Your task to perform on an android device: turn notification dots off Image 0: 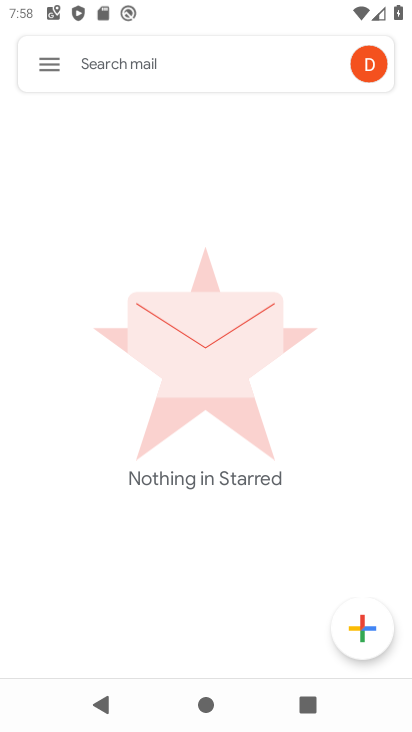
Step 0: press home button
Your task to perform on an android device: turn notification dots off Image 1: 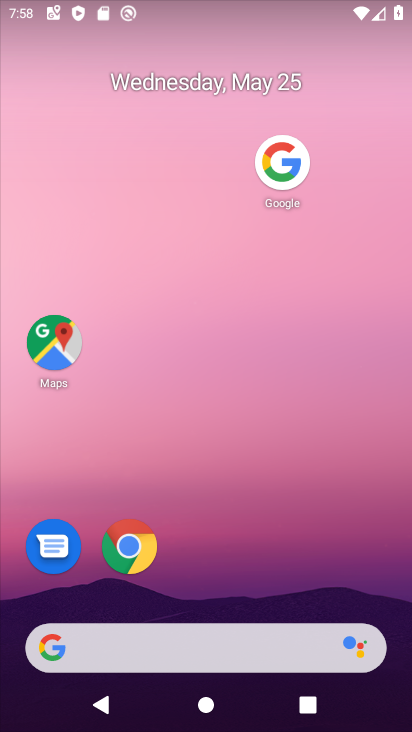
Step 1: drag from (223, 633) to (389, 105)
Your task to perform on an android device: turn notification dots off Image 2: 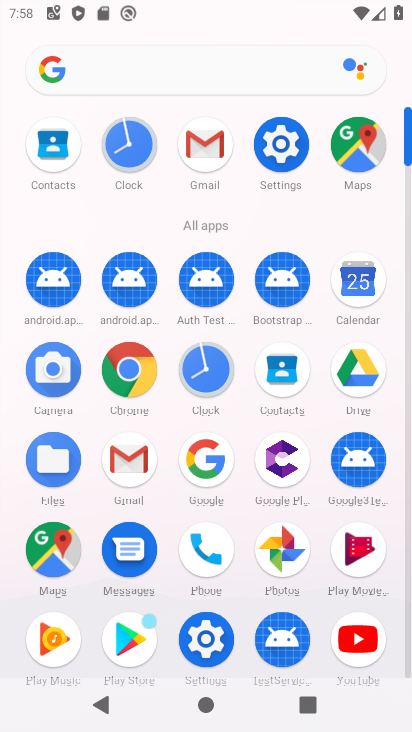
Step 2: click (281, 138)
Your task to perform on an android device: turn notification dots off Image 3: 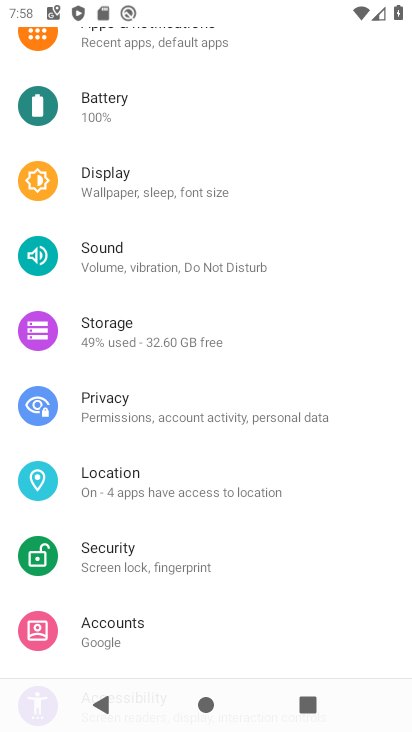
Step 3: click (311, 112)
Your task to perform on an android device: turn notification dots off Image 4: 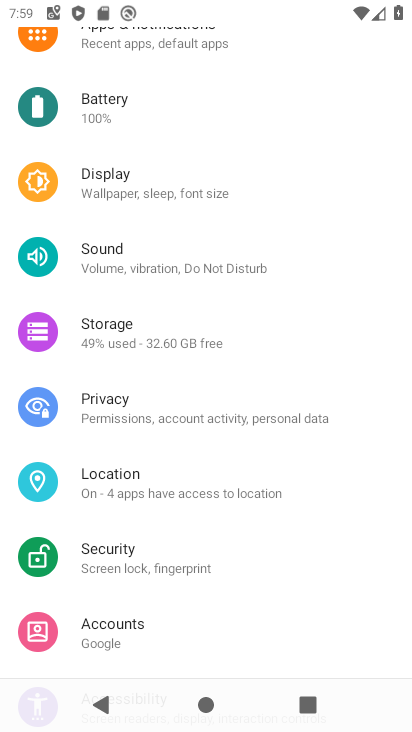
Step 4: drag from (267, 102) to (215, 533)
Your task to perform on an android device: turn notification dots off Image 5: 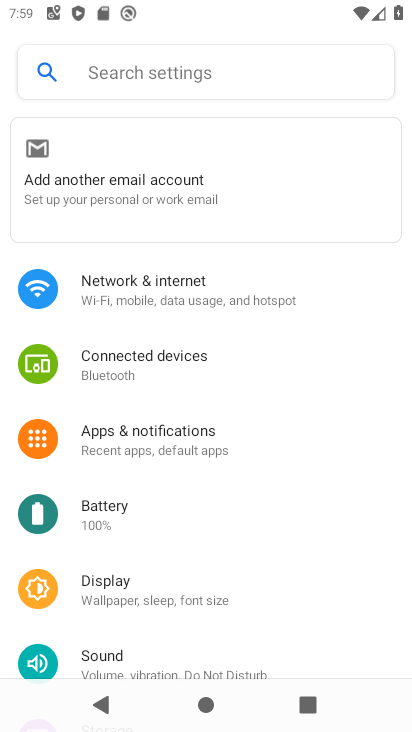
Step 5: click (178, 449)
Your task to perform on an android device: turn notification dots off Image 6: 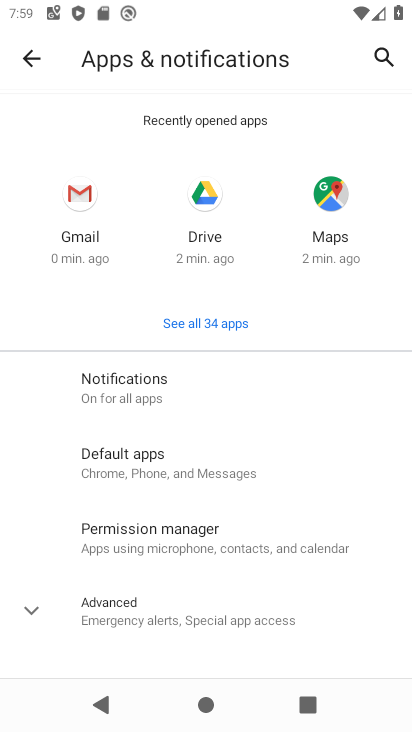
Step 6: click (141, 365)
Your task to perform on an android device: turn notification dots off Image 7: 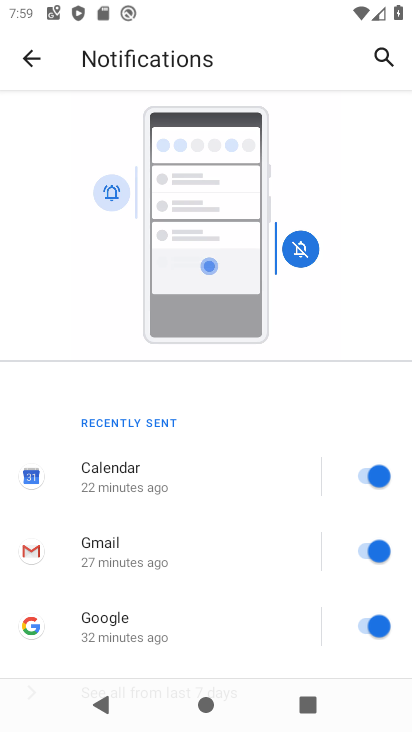
Step 7: drag from (204, 586) to (389, 160)
Your task to perform on an android device: turn notification dots off Image 8: 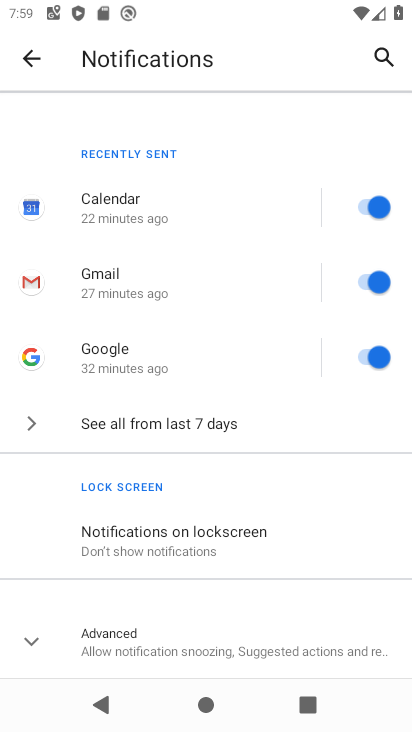
Step 8: click (188, 639)
Your task to perform on an android device: turn notification dots off Image 9: 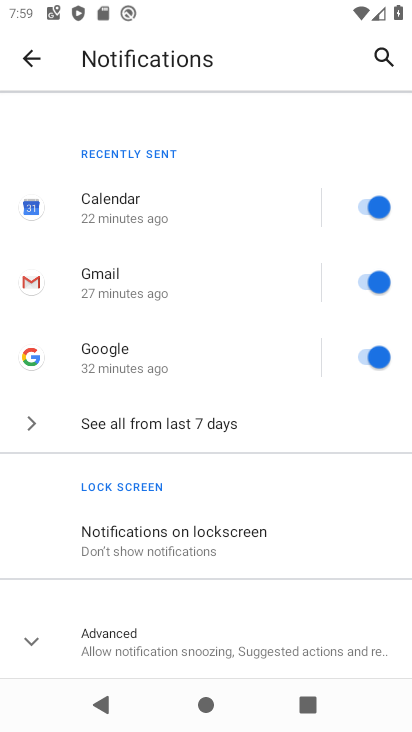
Step 9: drag from (300, 489) to (366, 389)
Your task to perform on an android device: turn notification dots off Image 10: 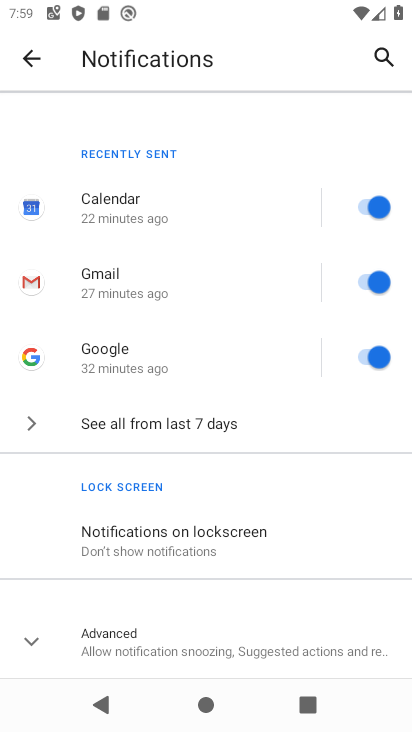
Step 10: click (210, 647)
Your task to perform on an android device: turn notification dots off Image 11: 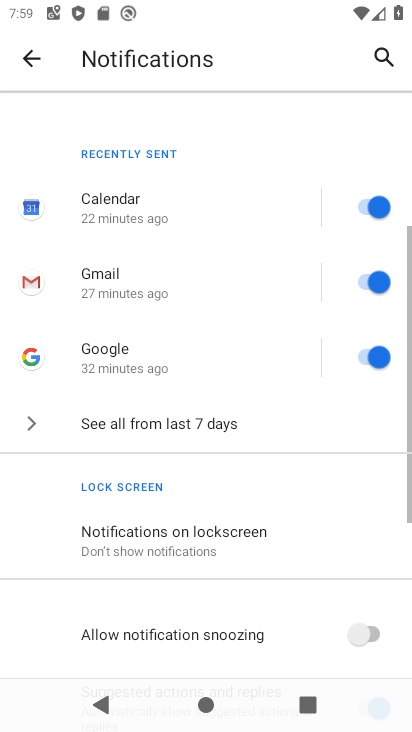
Step 11: drag from (211, 646) to (350, 134)
Your task to perform on an android device: turn notification dots off Image 12: 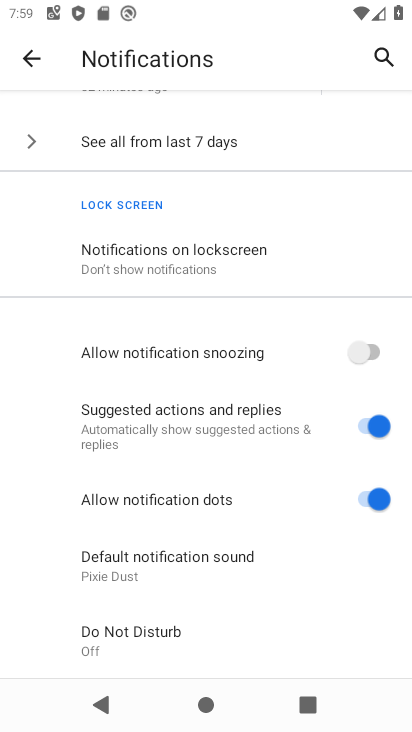
Step 12: click (366, 504)
Your task to perform on an android device: turn notification dots off Image 13: 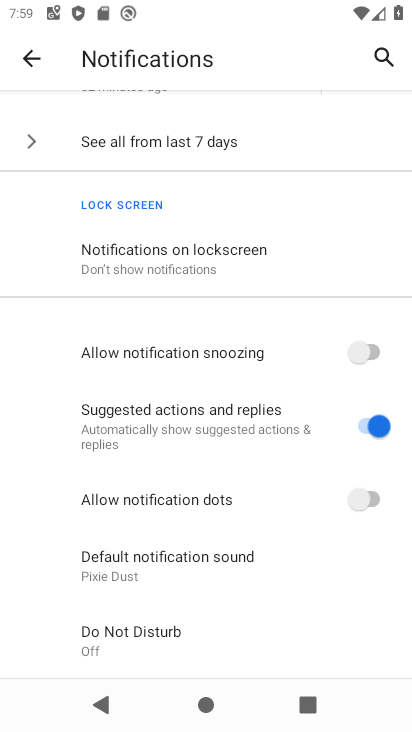
Step 13: task complete